Your task to perform on an android device: open the mobile data screen to see how much data has been used Image 0: 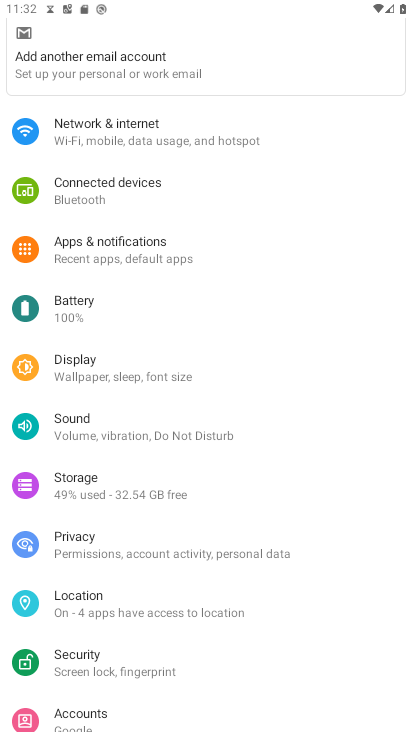
Step 0: press home button
Your task to perform on an android device: open the mobile data screen to see how much data has been used Image 1: 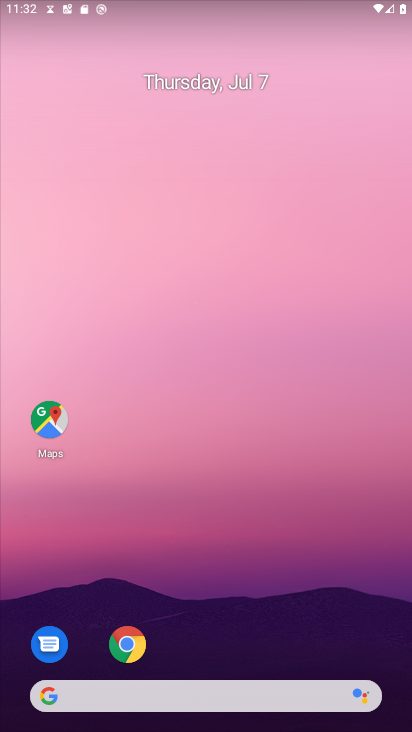
Step 1: drag from (260, 608) to (201, 158)
Your task to perform on an android device: open the mobile data screen to see how much data has been used Image 2: 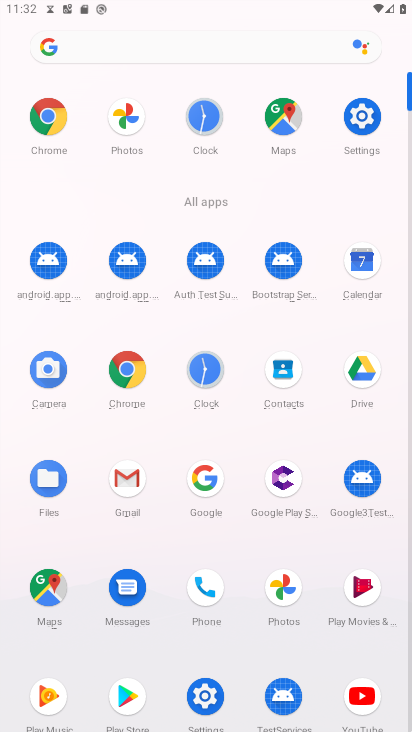
Step 2: click (352, 103)
Your task to perform on an android device: open the mobile data screen to see how much data has been used Image 3: 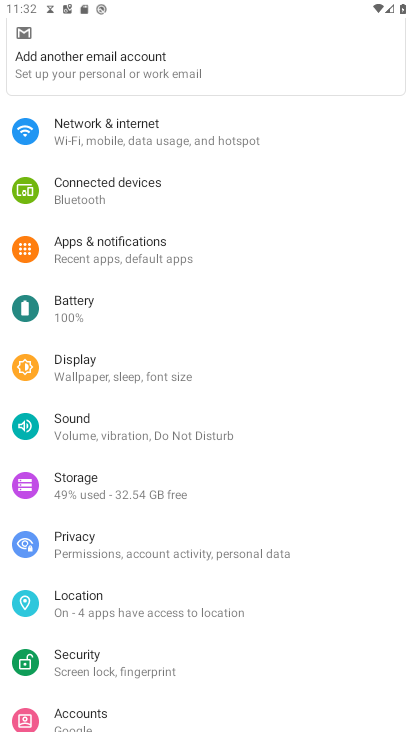
Step 3: click (119, 147)
Your task to perform on an android device: open the mobile data screen to see how much data has been used Image 4: 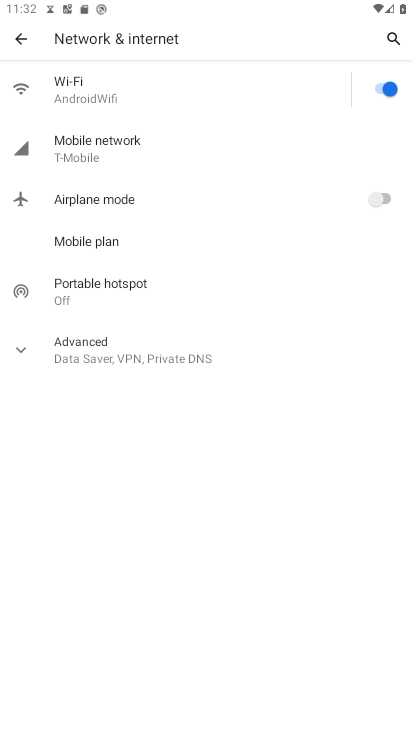
Step 4: click (119, 147)
Your task to perform on an android device: open the mobile data screen to see how much data has been used Image 5: 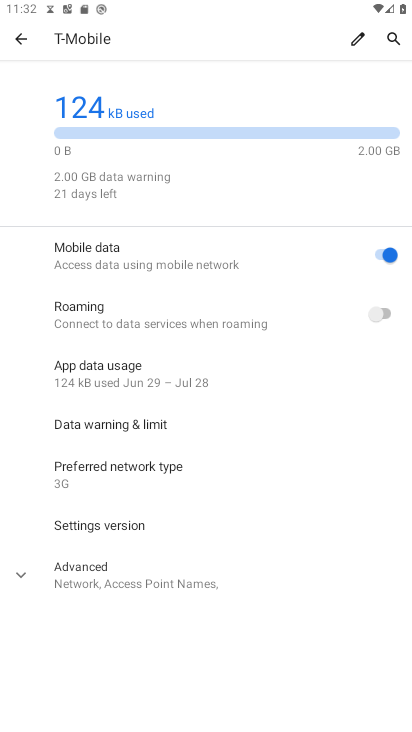
Step 5: task complete